Your task to perform on an android device: Open the calendar app, open the side menu, and click the "Day" option Image 0: 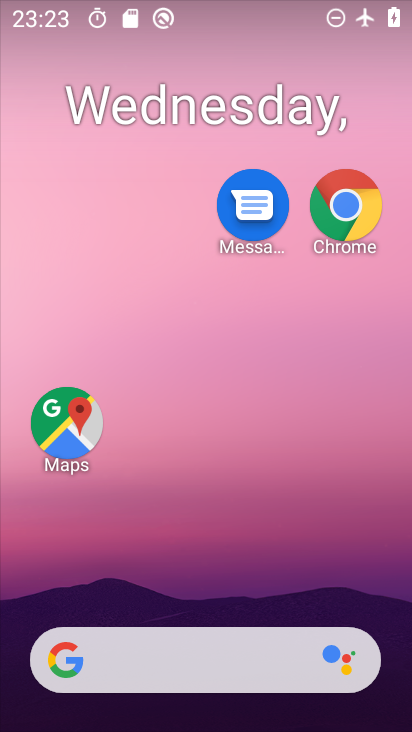
Step 0: drag from (176, 580) to (233, 114)
Your task to perform on an android device: Open the calendar app, open the side menu, and click the "Day" option Image 1: 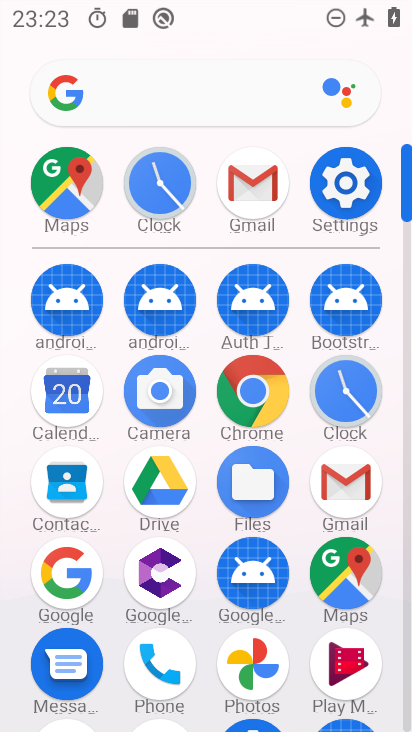
Step 1: click (60, 392)
Your task to perform on an android device: Open the calendar app, open the side menu, and click the "Day" option Image 2: 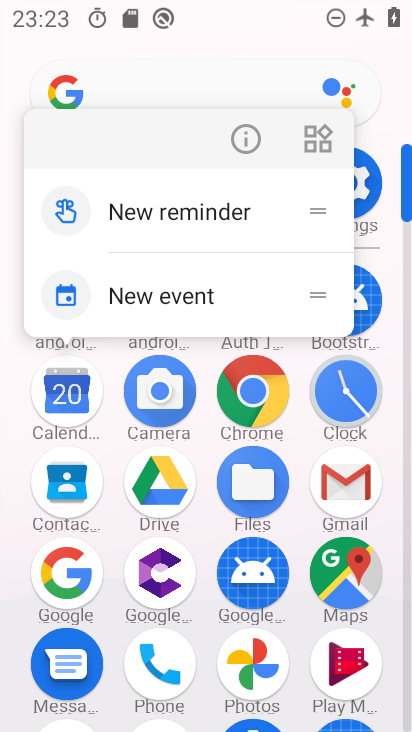
Step 2: click (251, 140)
Your task to perform on an android device: Open the calendar app, open the side menu, and click the "Day" option Image 3: 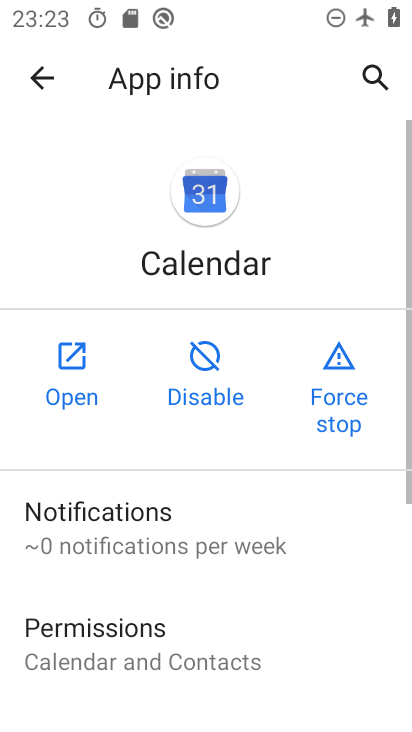
Step 3: click (86, 360)
Your task to perform on an android device: Open the calendar app, open the side menu, and click the "Day" option Image 4: 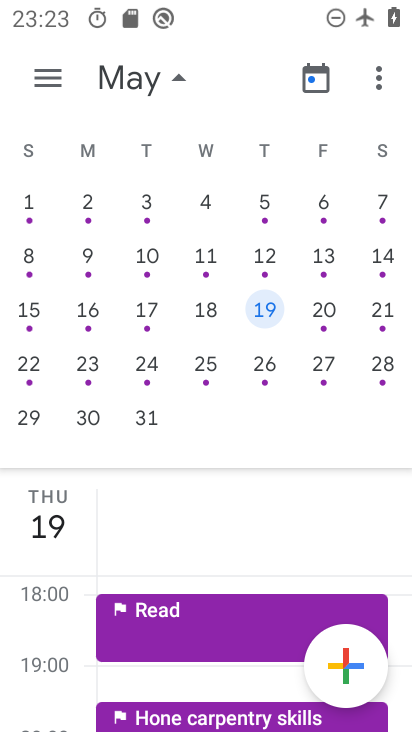
Step 4: click (55, 90)
Your task to perform on an android device: Open the calendar app, open the side menu, and click the "Day" option Image 5: 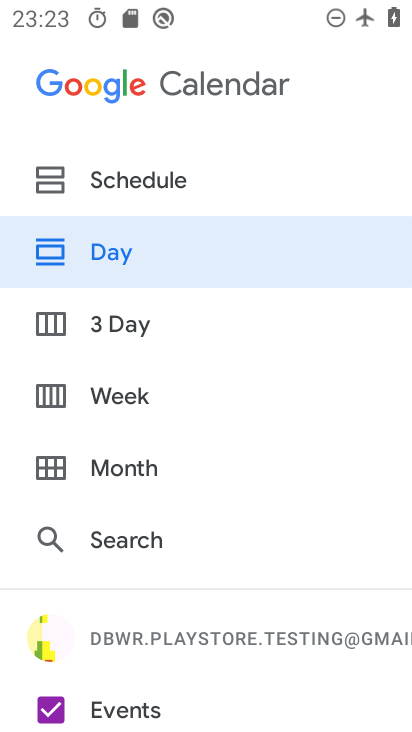
Step 5: click (207, 243)
Your task to perform on an android device: Open the calendar app, open the side menu, and click the "Day" option Image 6: 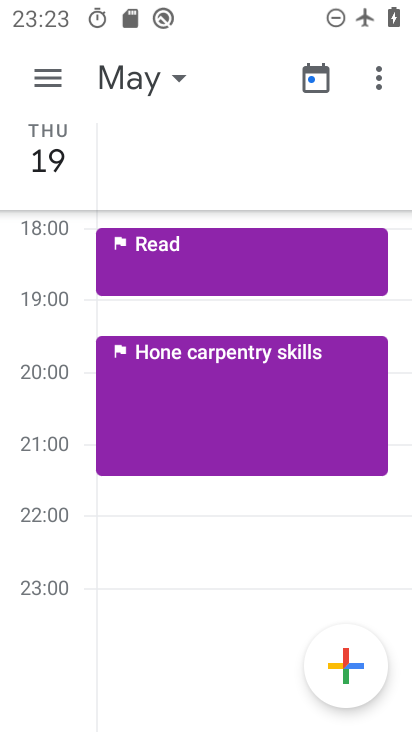
Step 6: task complete